Your task to perform on an android device: What's the weather? Image 0: 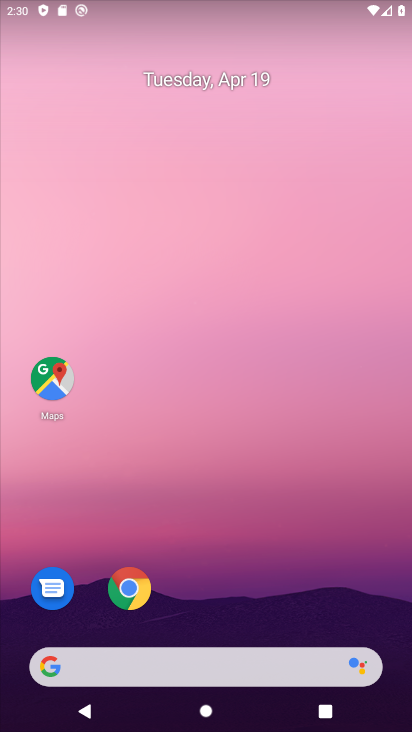
Step 0: click (349, 198)
Your task to perform on an android device: What's the weather? Image 1: 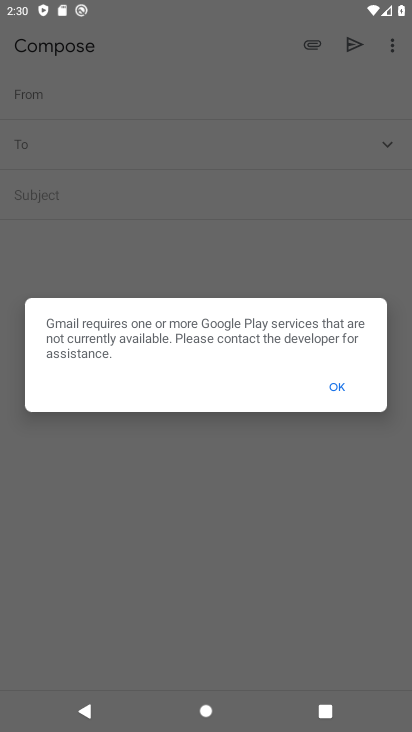
Step 1: drag from (243, 572) to (319, 265)
Your task to perform on an android device: What's the weather? Image 2: 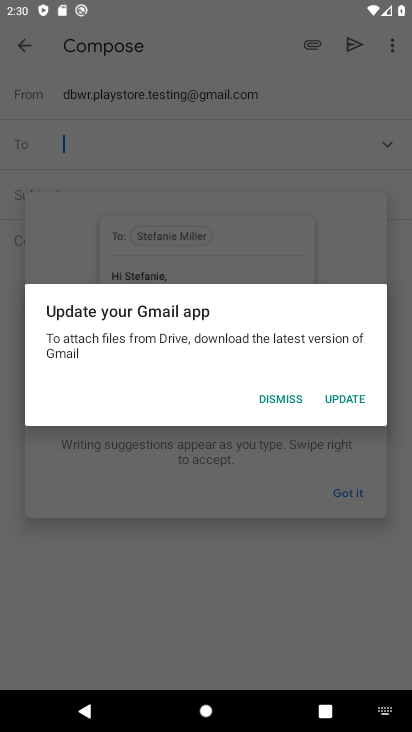
Step 2: press home button
Your task to perform on an android device: What's the weather? Image 3: 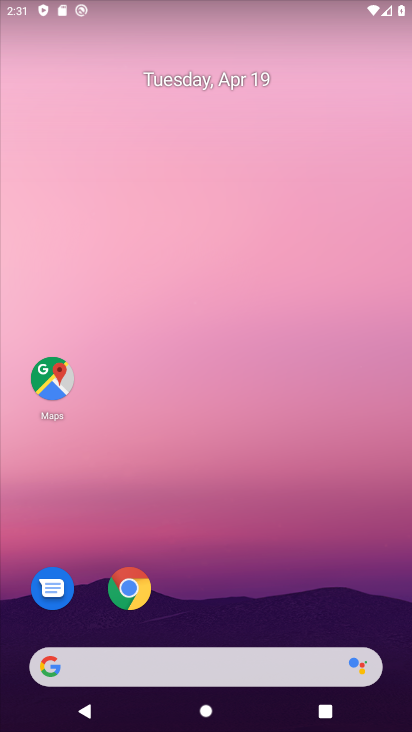
Step 3: drag from (189, 600) to (329, 219)
Your task to perform on an android device: What's the weather? Image 4: 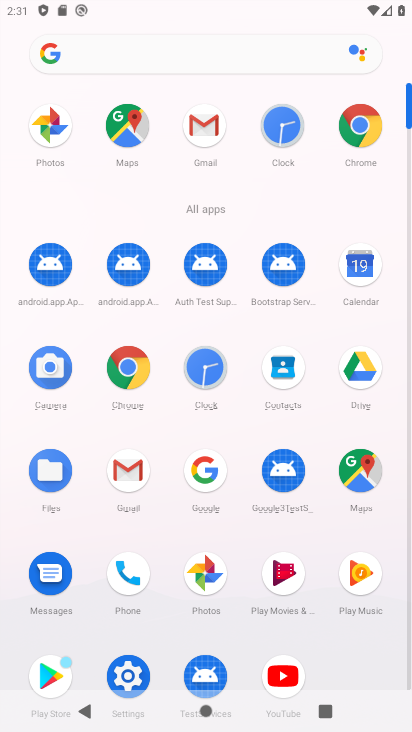
Step 4: click (135, 362)
Your task to perform on an android device: What's the weather? Image 5: 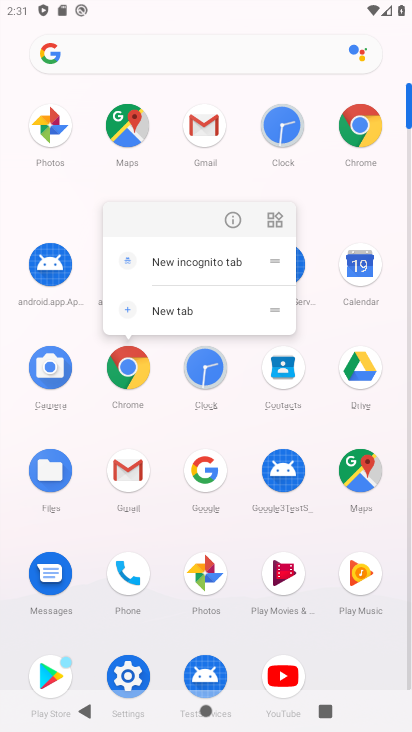
Step 5: click (235, 218)
Your task to perform on an android device: What's the weather? Image 6: 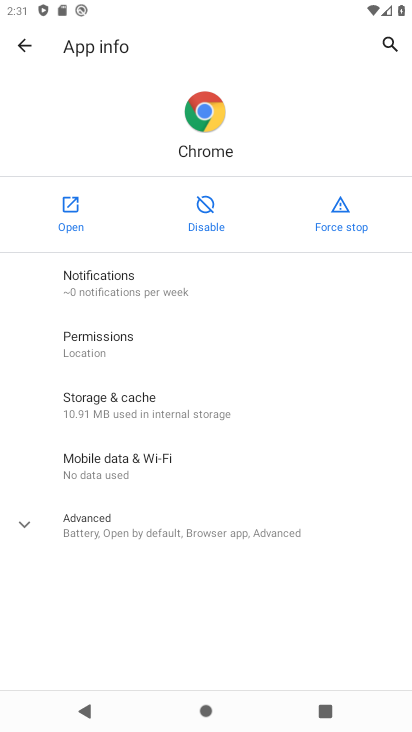
Step 6: click (78, 204)
Your task to perform on an android device: What's the weather? Image 7: 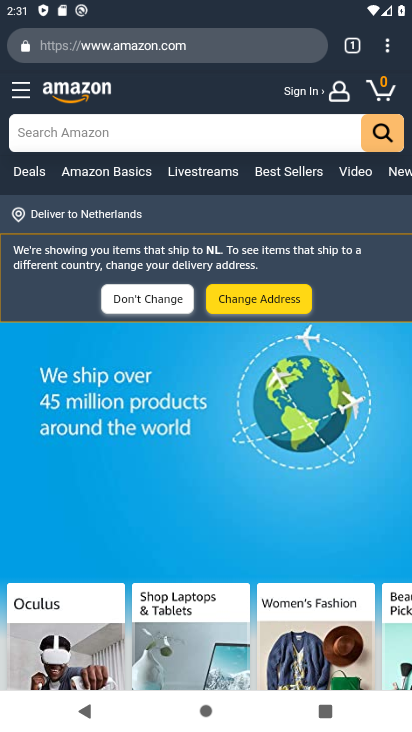
Step 7: drag from (188, 482) to (257, 589)
Your task to perform on an android device: What's the weather? Image 8: 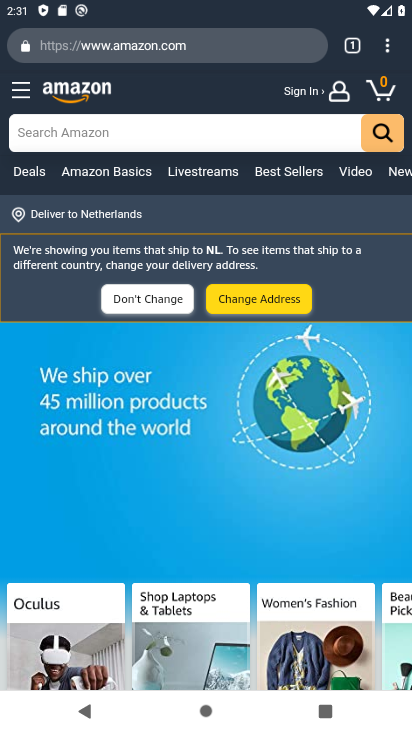
Step 8: drag from (189, 211) to (270, 624)
Your task to perform on an android device: What's the weather? Image 9: 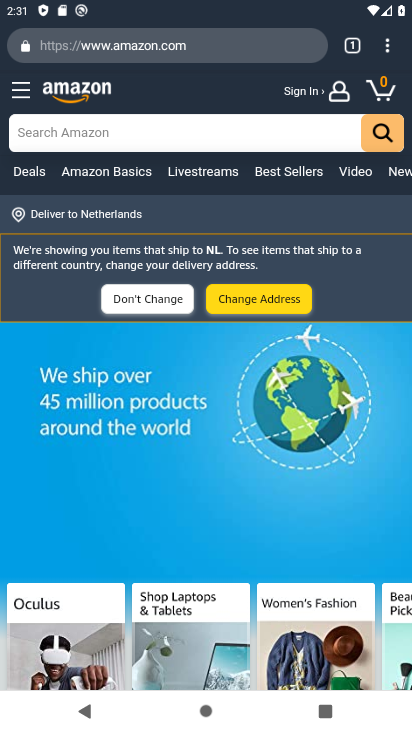
Step 9: click (97, 49)
Your task to perform on an android device: What's the weather? Image 10: 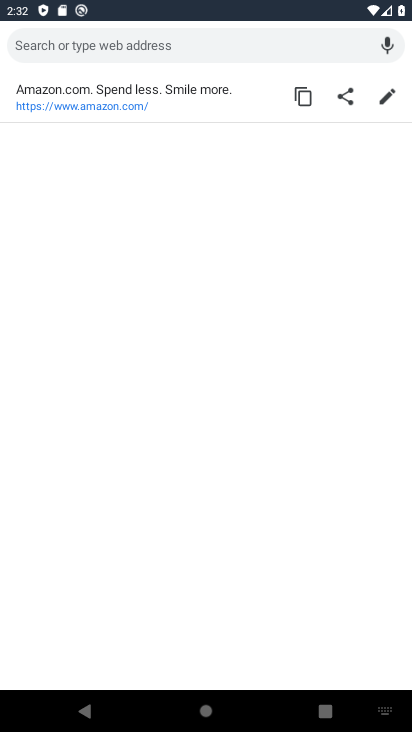
Step 10: click (186, 32)
Your task to perform on an android device: What's the weather? Image 11: 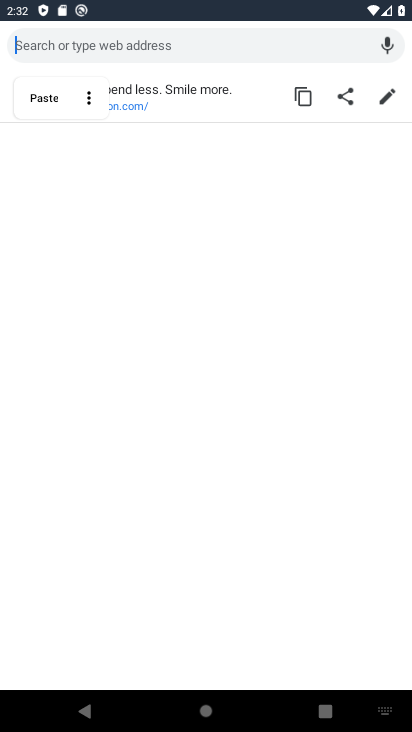
Step 11: type "weather"
Your task to perform on an android device: What's the weather? Image 12: 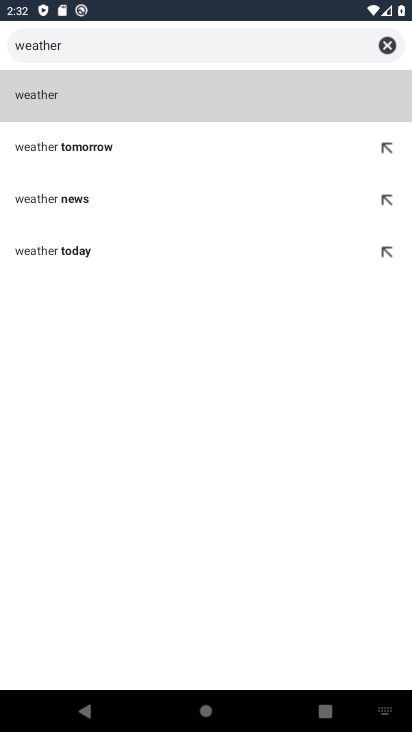
Step 12: click (99, 101)
Your task to perform on an android device: What's the weather? Image 13: 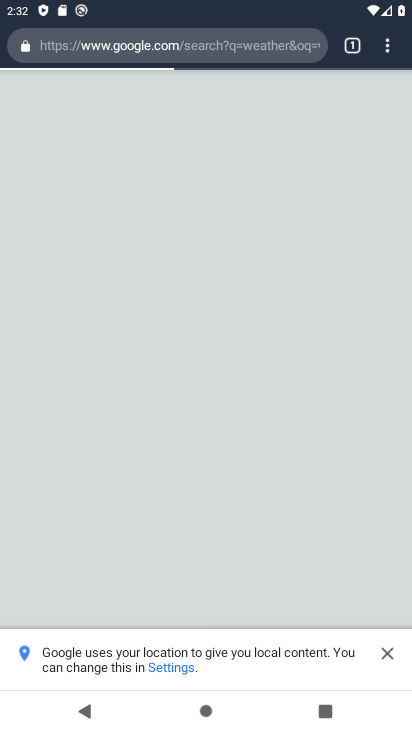
Step 13: task complete